Your task to perform on an android device: Go to eBay Image 0: 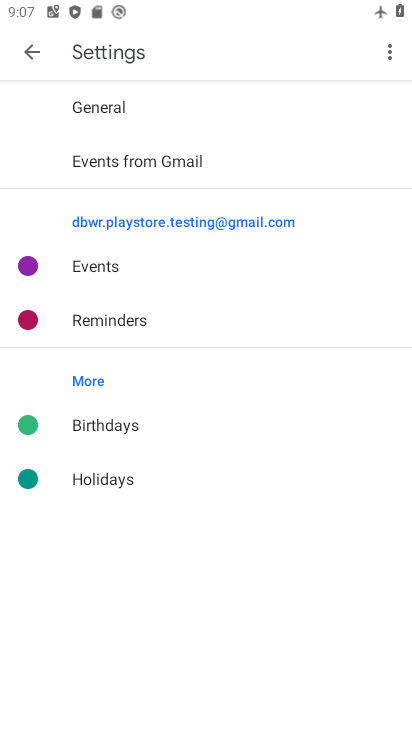
Step 0: press home button
Your task to perform on an android device: Go to eBay Image 1: 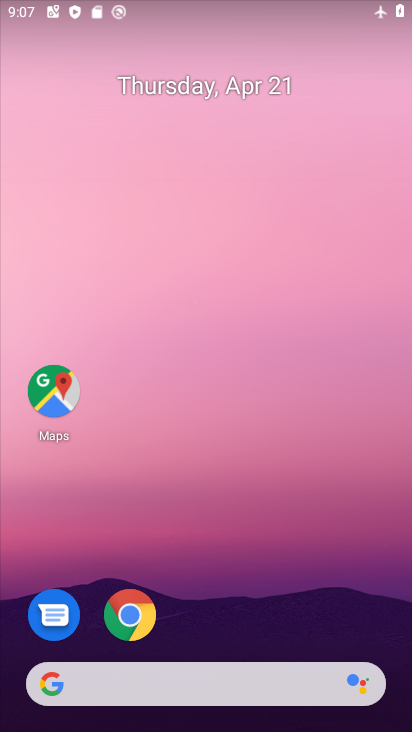
Step 1: click (132, 612)
Your task to perform on an android device: Go to eBay Image 2: 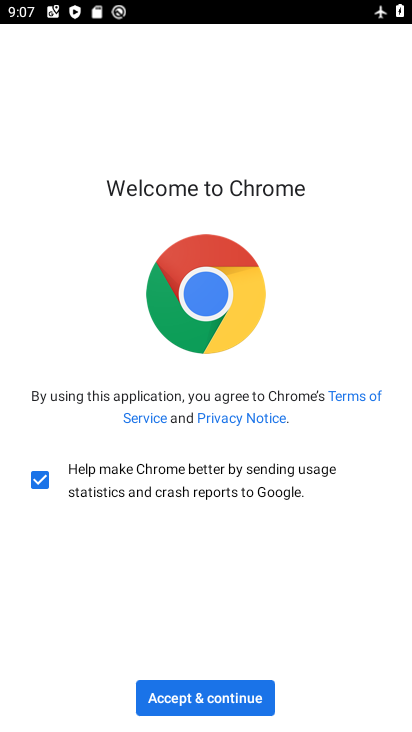
Step 2: click (182, 695)
Your task to perform on an android device: Go to eBay Image 3: 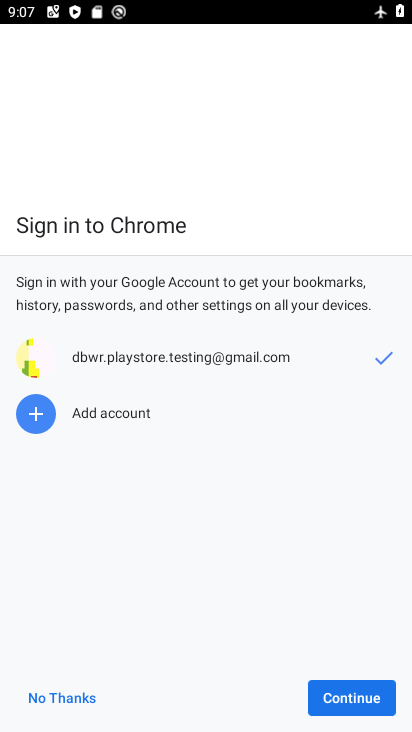
Step 3: click (357, 692)
Your task to perform on an android device: Go to eBay Image 4: 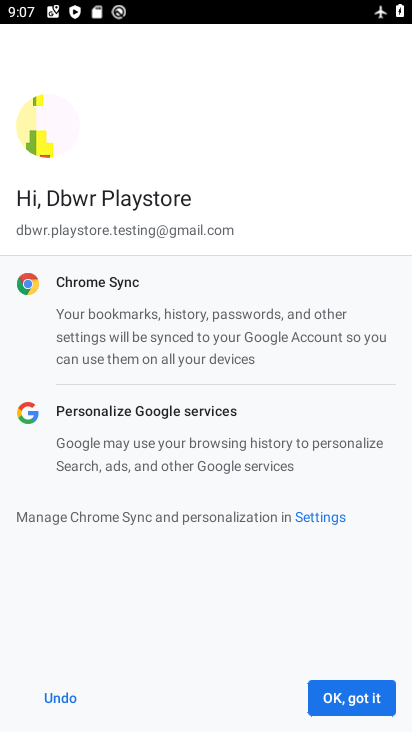
Step 4: click (357, 692)
Your task to perform on an android device: Go to eBay Image 5: 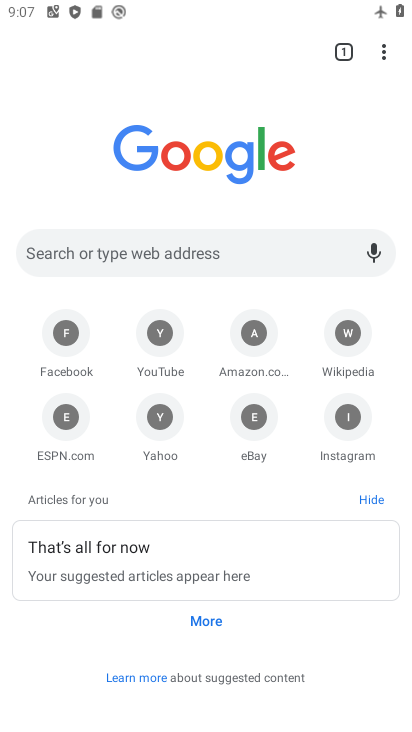
Step 5: click (260, 421)
Your task to perform on an android device: Go to eBay Image 6: 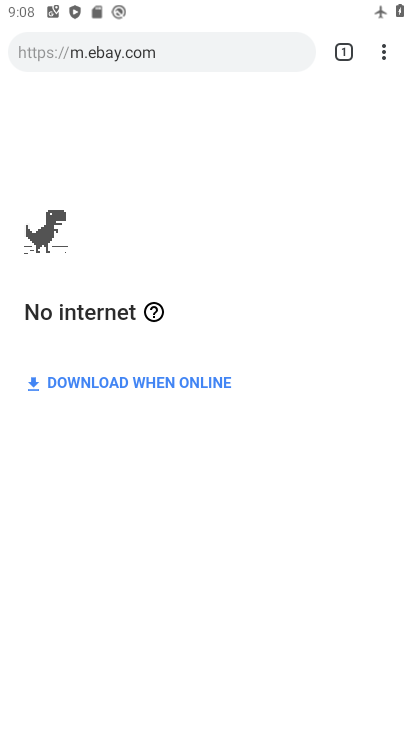
Step 6: task complete